Your task to perform on an android device: turn off improve location accuracy Image 0: 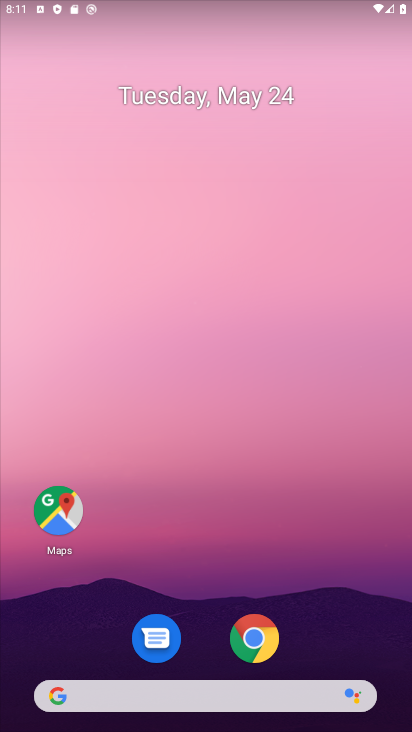
Step 0: click (66, 521)
Your task to perform on an android device: turn off improve location accuracy Image 1: 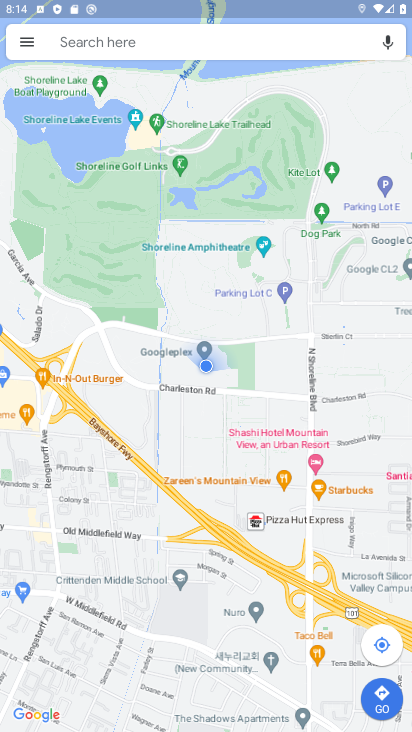
Step 1: click (17, 41)
Your task to perform on an android device: turn off improve location accuracy Image 2: 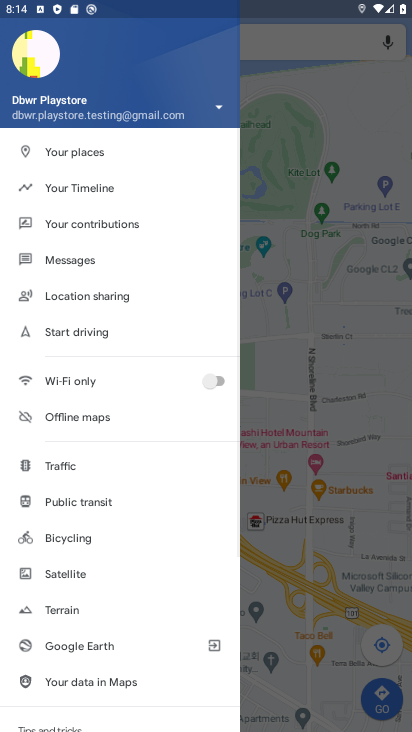
Step 2: drag from (96, 677) to (105, 143)
Your task to perform on an android device: turn off improve location accuracy Image 3: 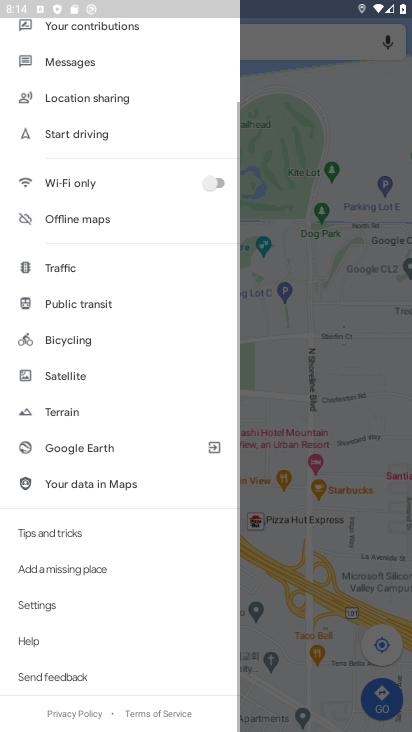
Step 3: click (72, 617)
Your task to perform on an android device: turn off improve location accuracy Image 4: 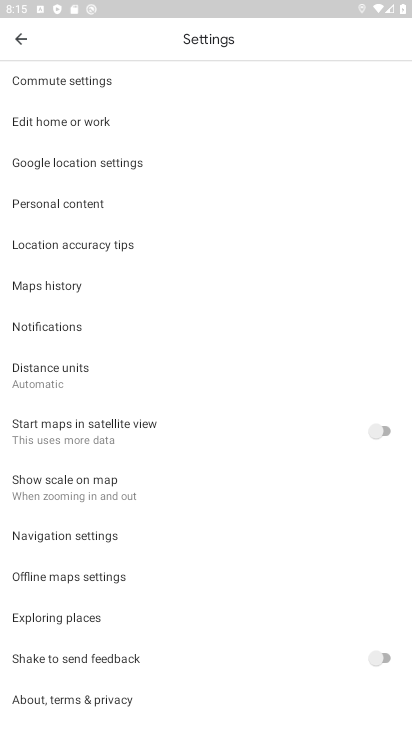
Step 4: click (135, 167)
Your task to perform on an android device: turn off improve location accuracy Image 5: 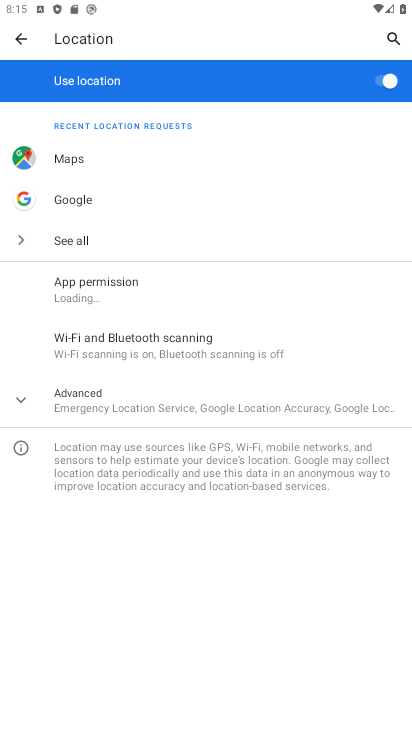
Step 5: click (237, 411)
Your task to perform on an android device: turn off improve location accuracy Image 6: 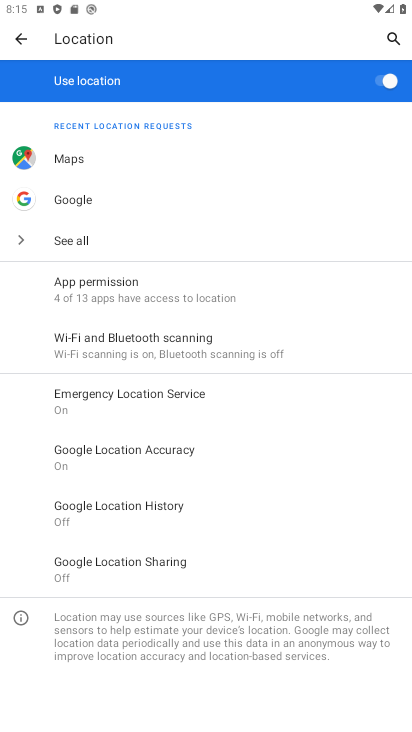
Step 6: click (145, 452)
Your task to perform on an android device: turn off improve location accuracy Image 7: 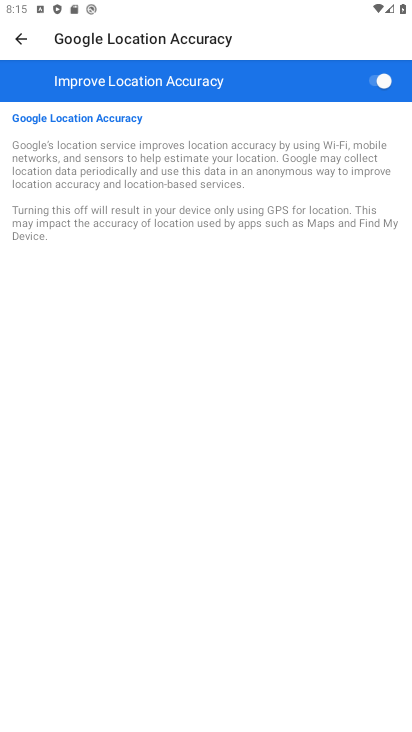
Step 7: click (383, 83)
Your task to perform on an android device: turn off improve location accuracy Image 8: 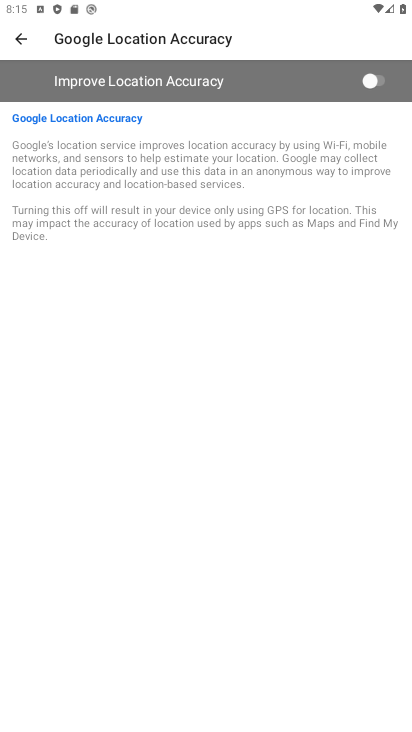
Step 8: task complete